Your task to perform on an android device: refresh tabs in the chrome app Image 0: 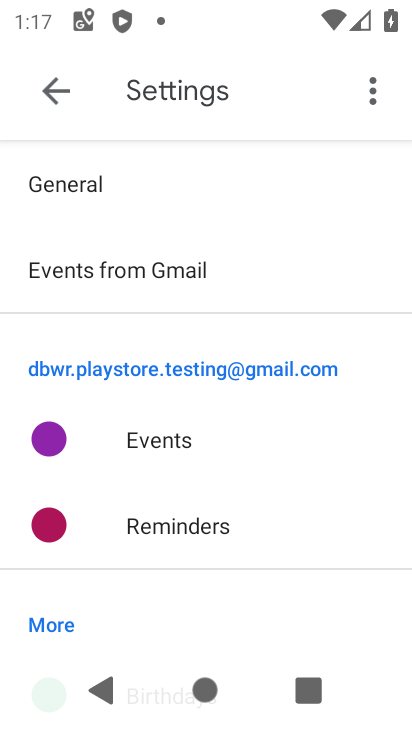
Step 0: press home button
Your task to perform on an android device: refresh tabs in the chrome app Image 1: 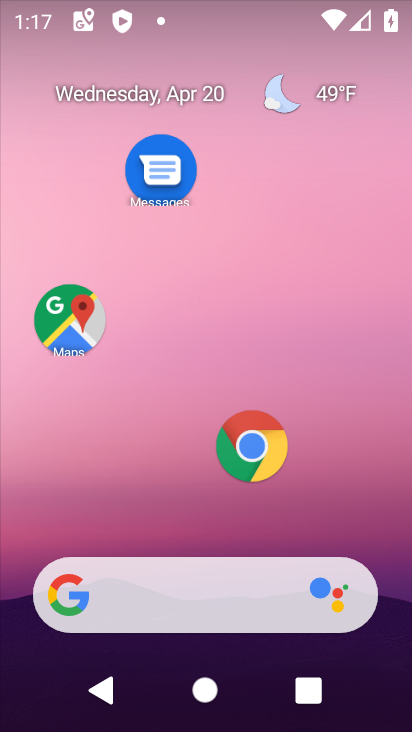
Step 1: click (249, 442)
Your task to perform on an android device: refresh tabs in the chrome app Image 2: 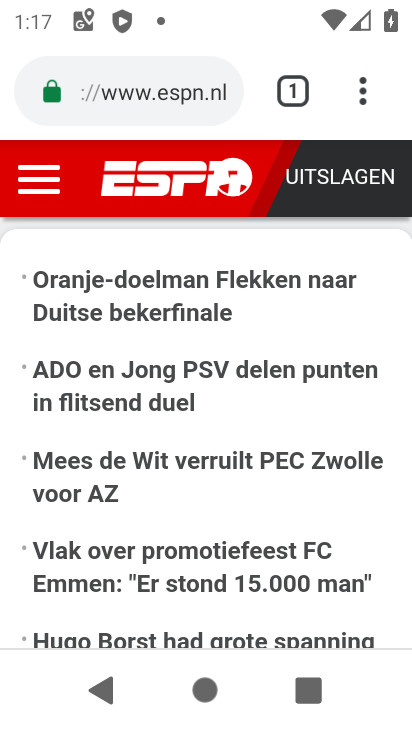
Step 2: click (361, 84)
Your task to perform on an android device: refresh tabs in the chrome app Image 3: 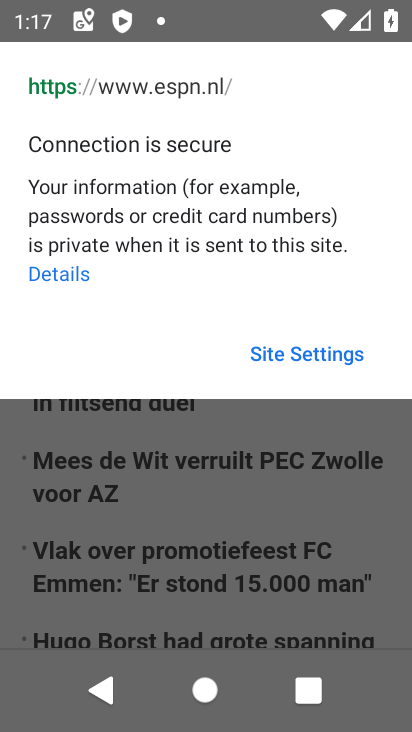
Step 3: click (221, 555)
Your task to perform on an android device: refresh tabs in the chrome app Image 4: 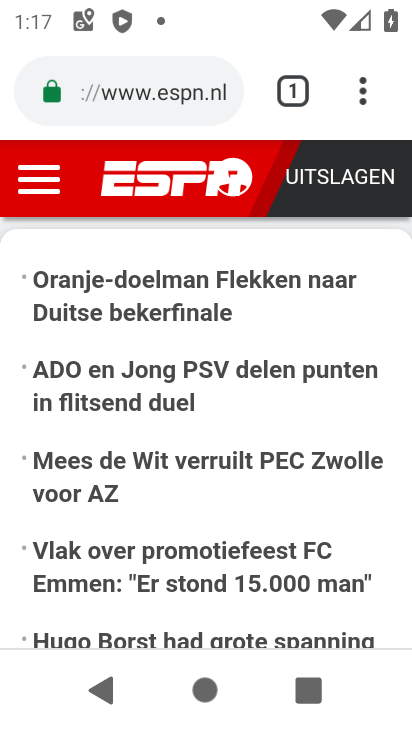
Step 4: click (361, 83)
Your task to perform on an android device: refresh tabs in the chrome app Image 5: 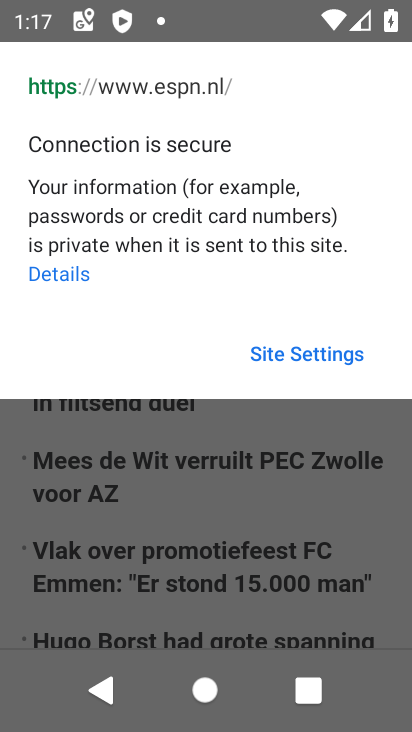
Step 5: click (212, 542)
Your task to perform on an android device: refresh tabs in the chrome app Image 6: 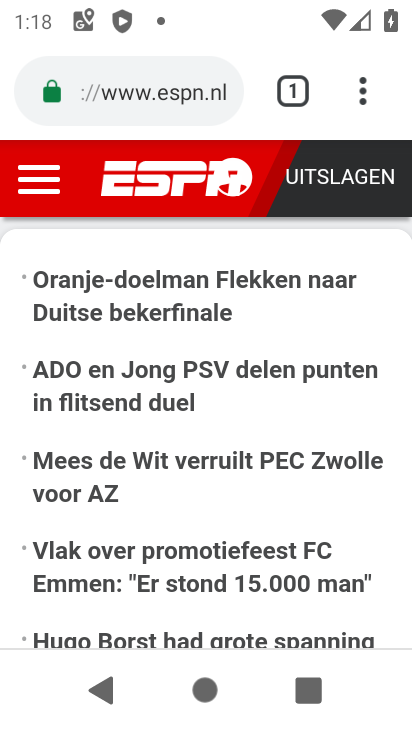
Step 6: click (361, 91)
Your task to perform on an android device: refresh tabs in the chrome app Image 7: 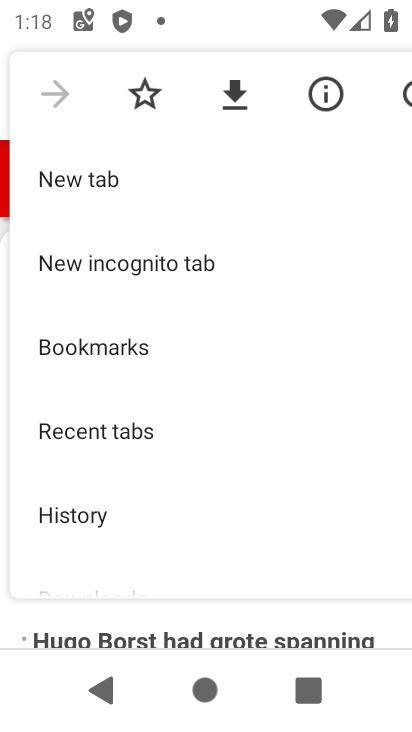
Step 7: click (402, 84)
Your task to perform on an android device: refresh tabs in the chrome app Image 8: 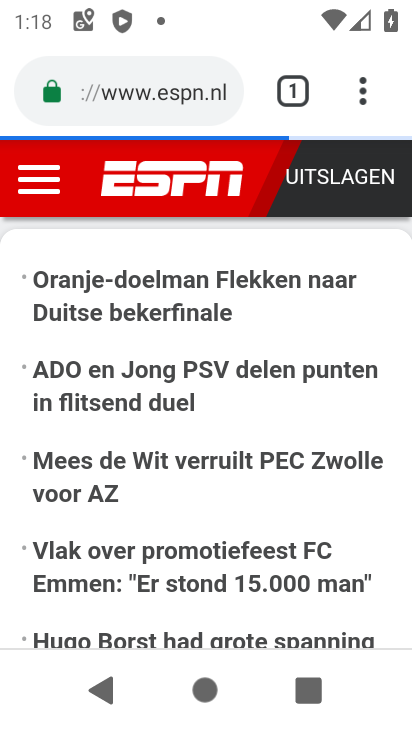
Step 8: task complete